Your task to perform on an android device: see creations saved in the google photos Image 0: 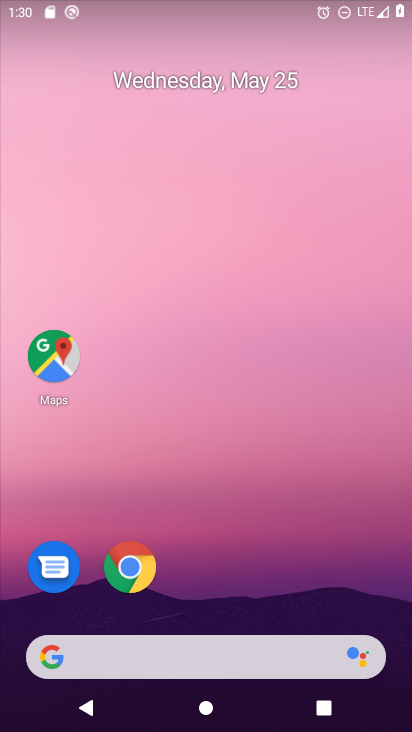
Step 0: drag from (382, 638) to (382, 285)
Your task to perform on an android device: see creations saved in the google photos Image 1: 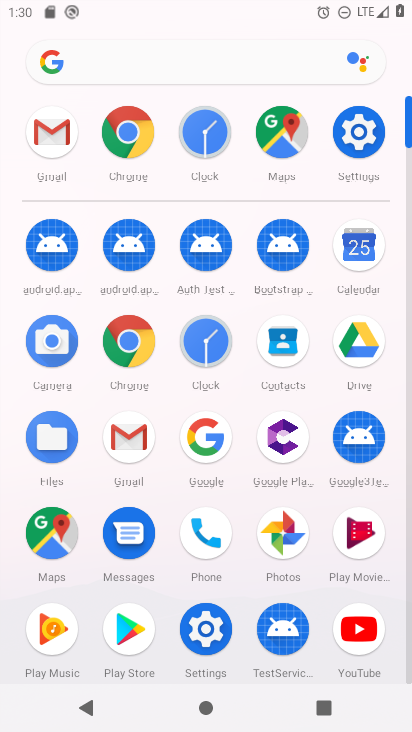
Step 1: click (274, 529)
Your task to perform on an android device: see creations saved in the google photos Image 2: 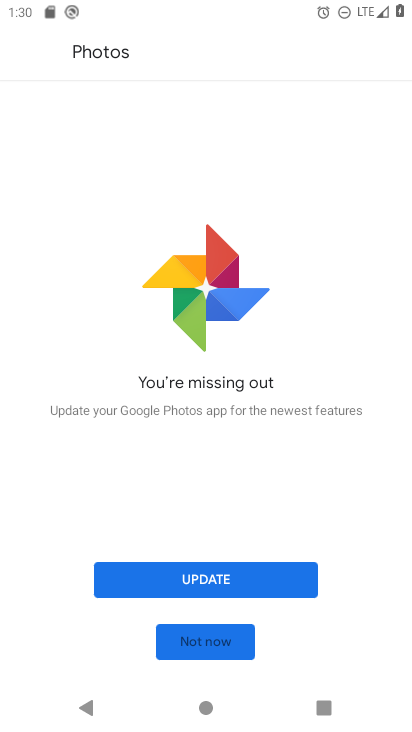
Step 2: click (271, 568)
Your task to perform on an android device: see creations saved in the google photos Image 3: 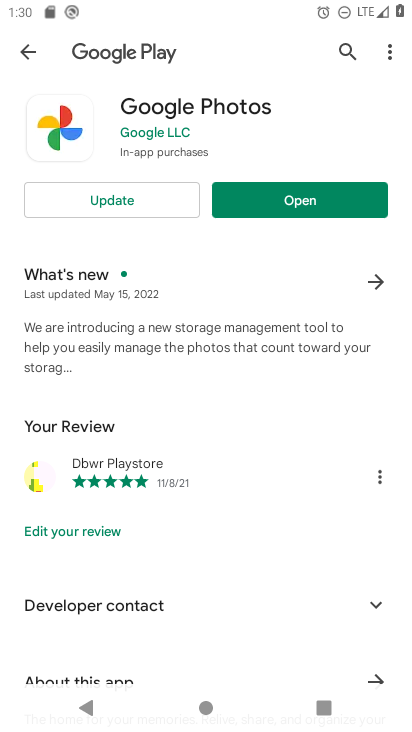
Step 3: click (128, 204)
Your task to perform on an android device: see creations saved in the google photos Image 4: 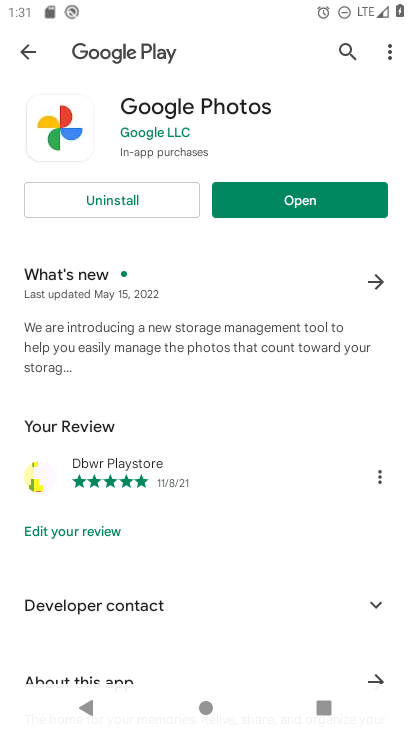
Step 4: click (257, 209)
Your task to perform on an android device: see creations saved in the google photos Image 5: 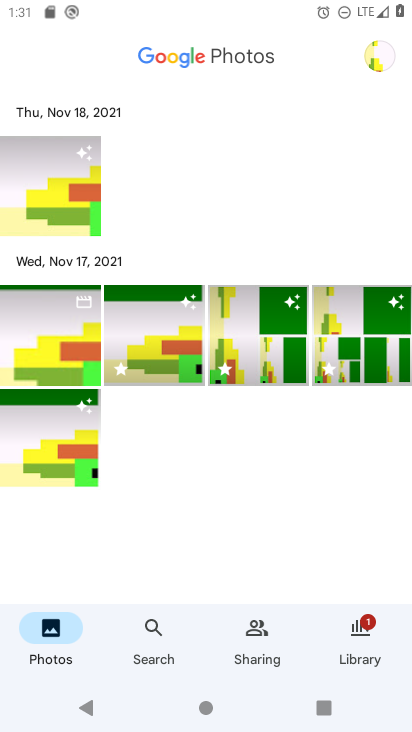
Step 5: click (85, 197)
Your task to perform on an android device: see creations saved in the google photos Image 6: 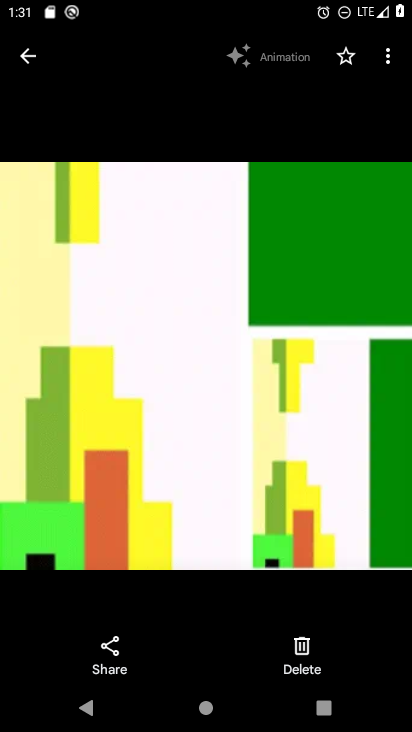
Step 6: task complete